Your task to perform on an android device: Open the Play Movies app and select the watchlist tab. Image 0: 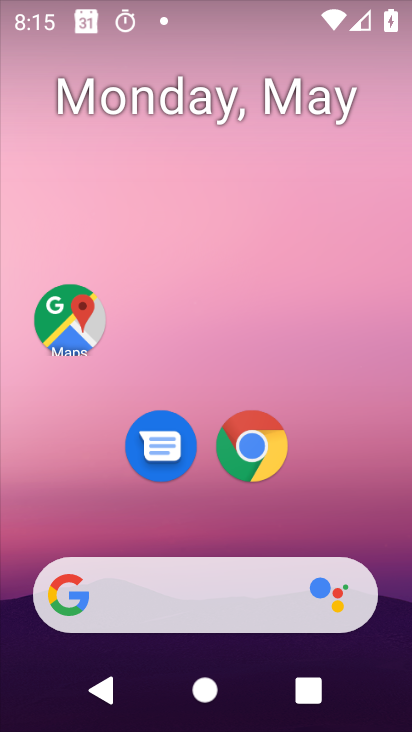
Step 0: drag from (381, 555) to (335, 6)
Your task to perform on an android device: Open the Play Movies app and select the watchlist tab. Image 1: 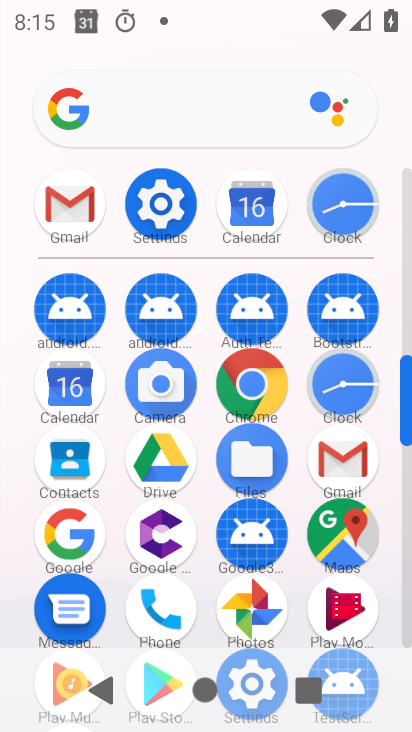
Step 1: click (340, 597)
Your task to perform on an android device: Open the Play Movies app and select the watchlist tab. Image 2: 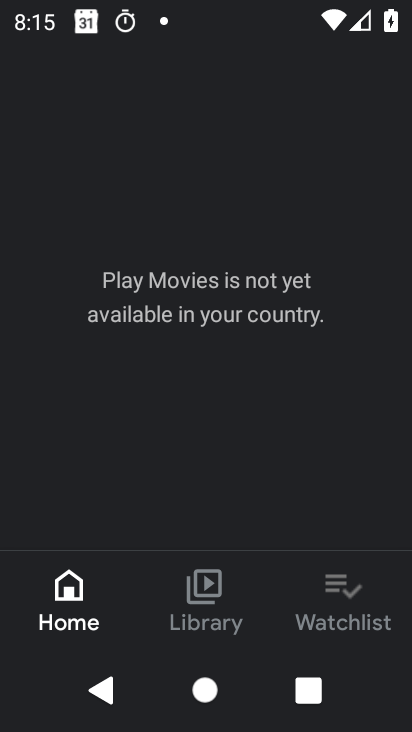
Step 2: click (328, 597)
Your task to perform on an android device: Open the Play Movies app and select the watchlist tab. Image 3: 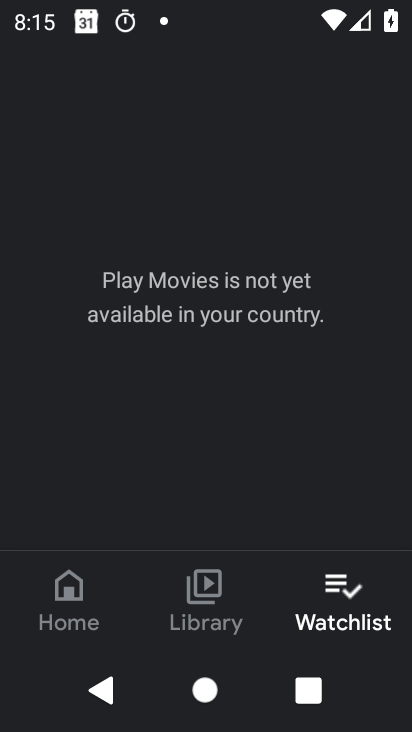
Step 3: task complete